Your task to perform on an android device: Do I have any events today? Image 0: 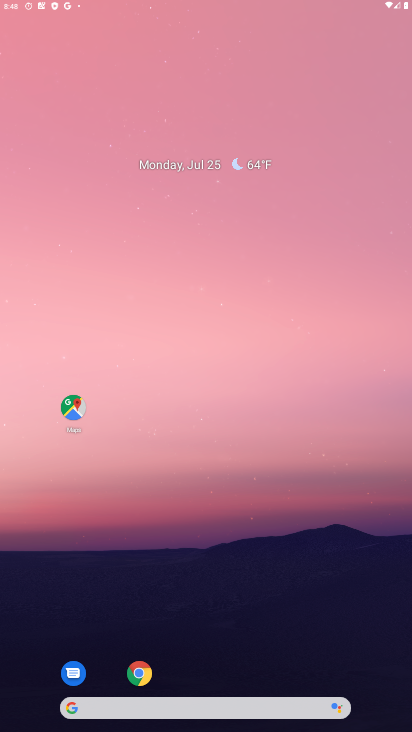
Step 0: drag from (175, 533) to (252, 9)
Your task to perform on an android device: Do I have any events today? Image 1: 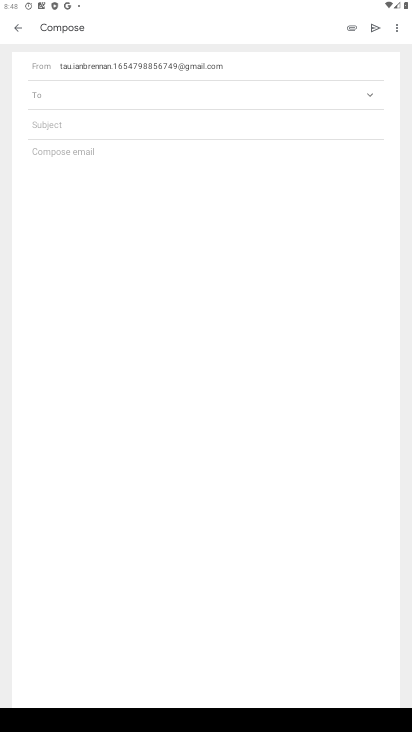
Step 1: press home button
Your task to perform on an android device: Do I have any events today? Image 2: 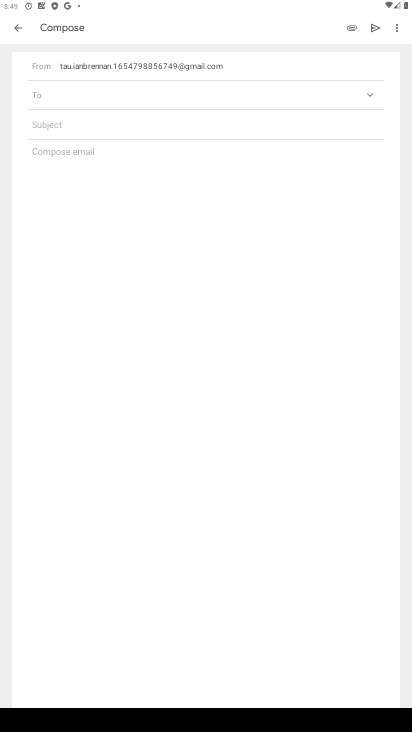
Step 2: press home button
Your task to perform on an android device: Do I have any events today? Image 3: 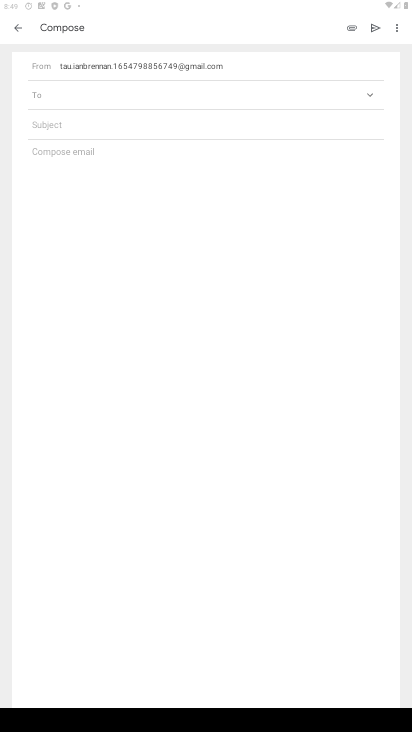
Step 3: drag from (241, 15) to (136, 17)
Your task to perform on an android device: Do I have any events today? Image 4: 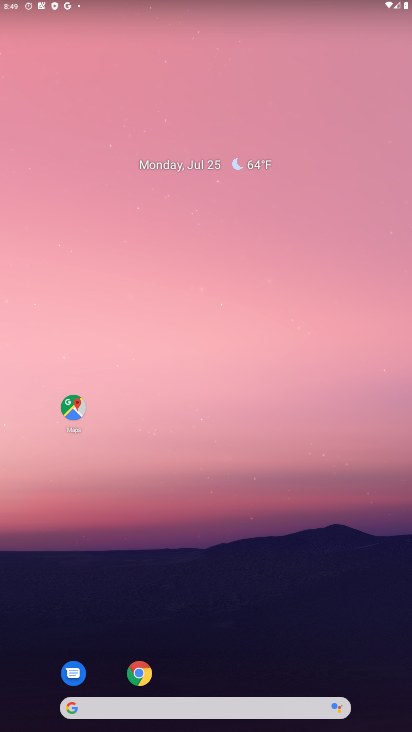
Step 4: drag from (182, 661) to (277, 107)
Your task to perform on an android device: Do I have any events today? Image 5: 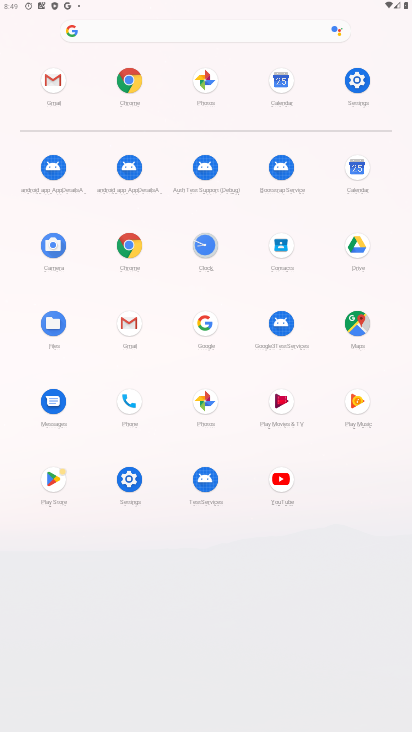
Step 5: click (350, 165)
Your task to perform on an android device: Do I have any events today? Image 6: 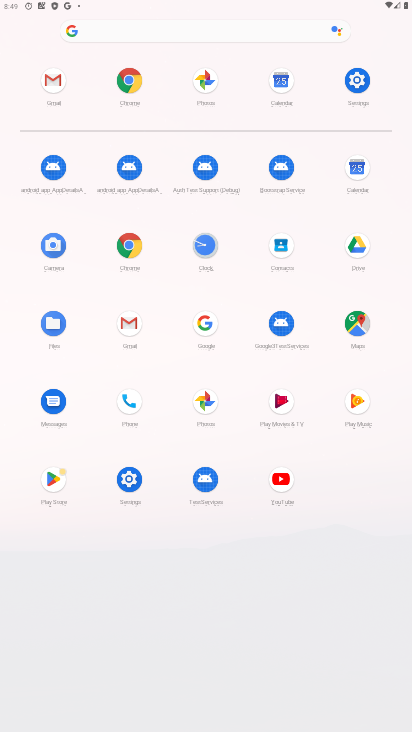
Step 6: click (350, 165)
Your task to perform on an android device: Do I have any events today? Image 7: 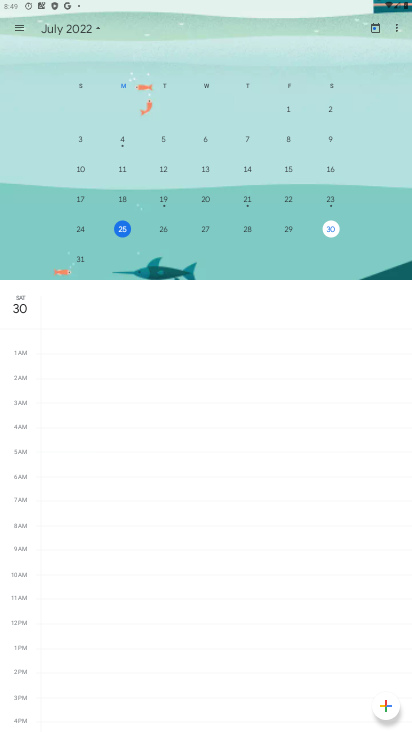
Step 7: click (373, 26)
Your task to perform on an android device: Do I have any events today? Image 8: 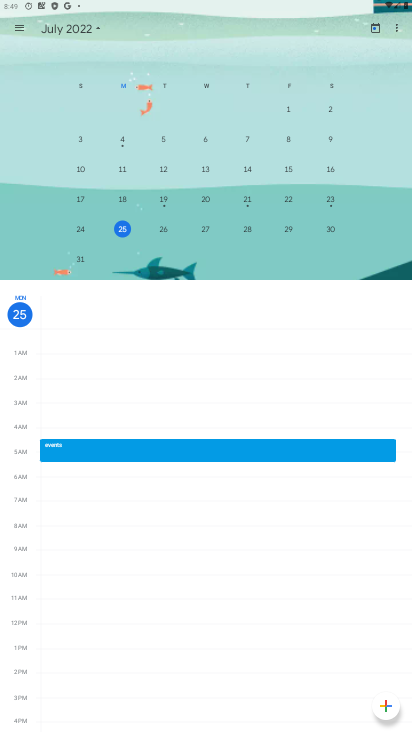
Step 8: click (120, 227)
Your task to perform on an android device: Do I have any events today? Image 9: 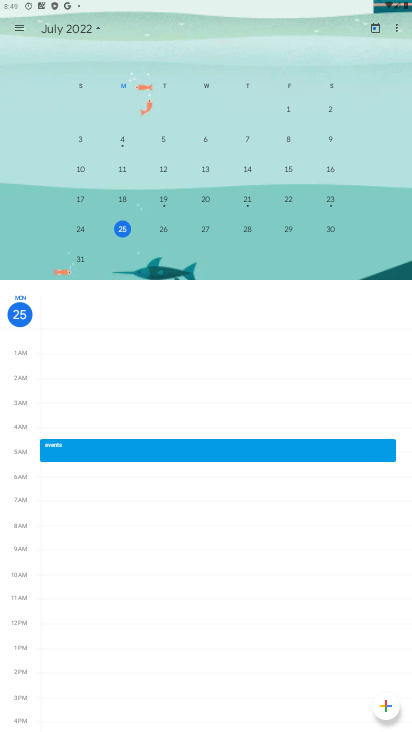
Step 9: task complete